Your task to perform on an android device: Go to CNN.com Image 0: 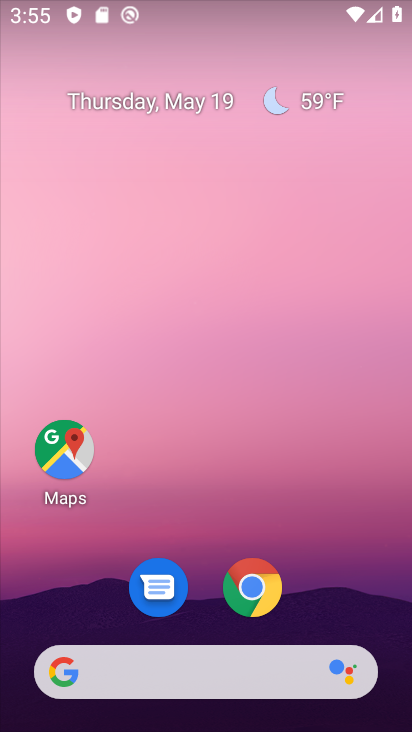
Step 0: click (134, 648)
Your task to perform on an android device: Go to CNN.com Image 1: 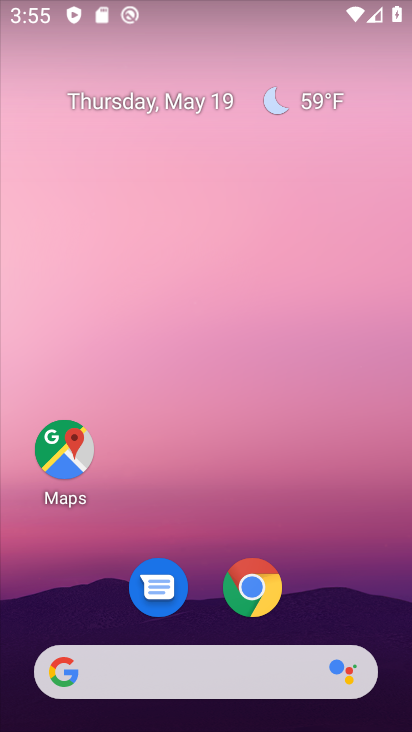
Step 1: drag from (169, 638) to (186, 243)
Your task to perform on an android device: Go to CNN.com Image 2: 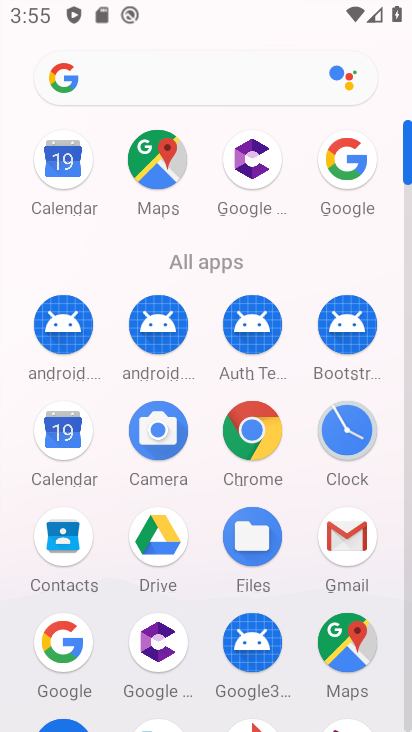
Step 2: click (67, 641)
Your task to perform on an android device: Go to CNN.com Image 3: 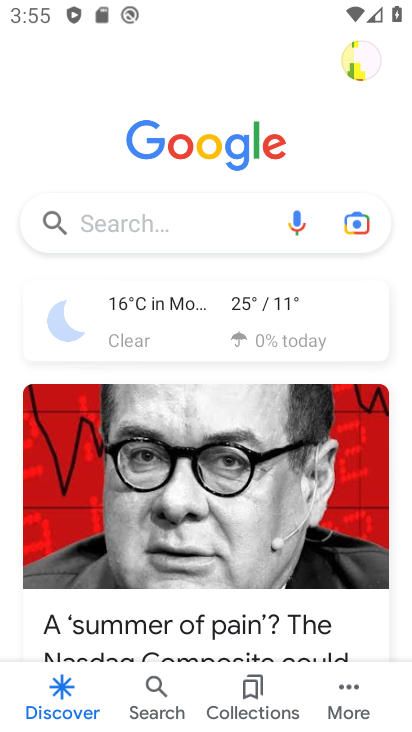
Step 3: click (168, 213)
Your task to perform on an android device: Go to CNN.com Image 4: 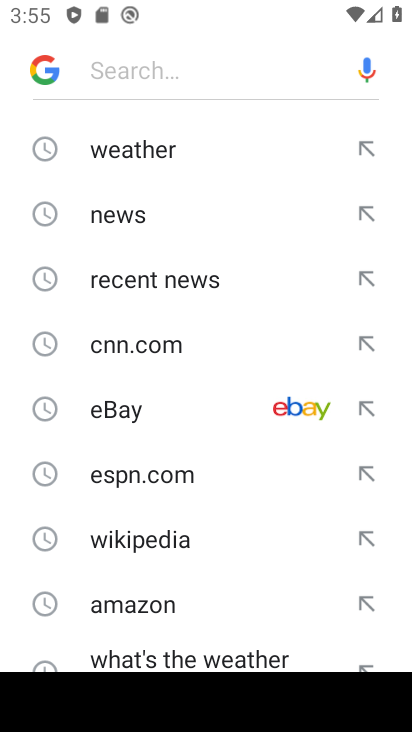
Step 4: click (161, 342)
Your task to perform on an android device: Go to CNN.com Image 5: 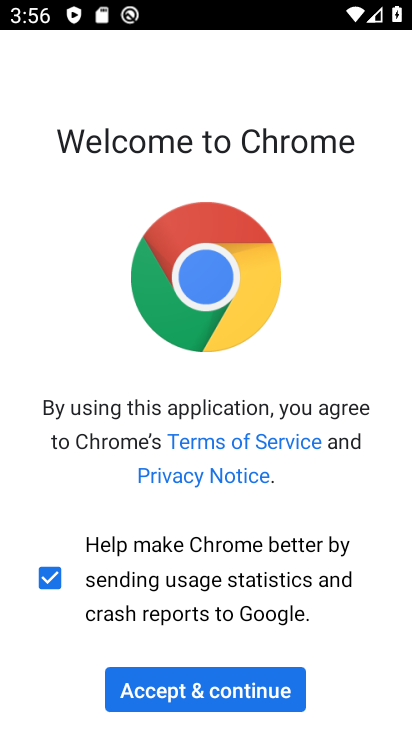
Step 5: drag from (240, 684) to (321, 684)
Your task to perform on an android device: Go to CNN.com Image 6: 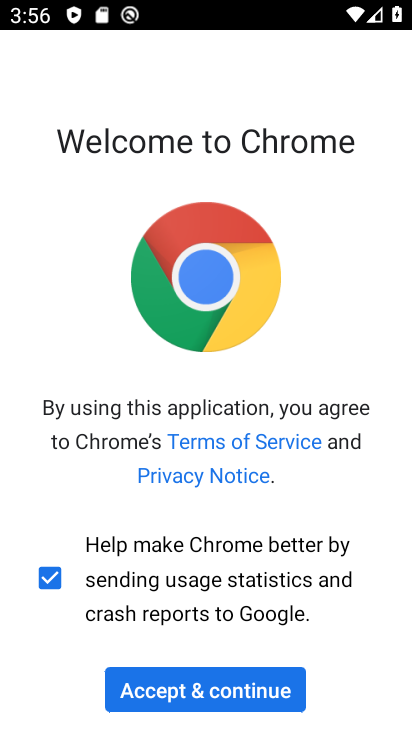
Step 6: click (173, 691)
Your task to perform on an android device: Go to CNN.com Image 7: 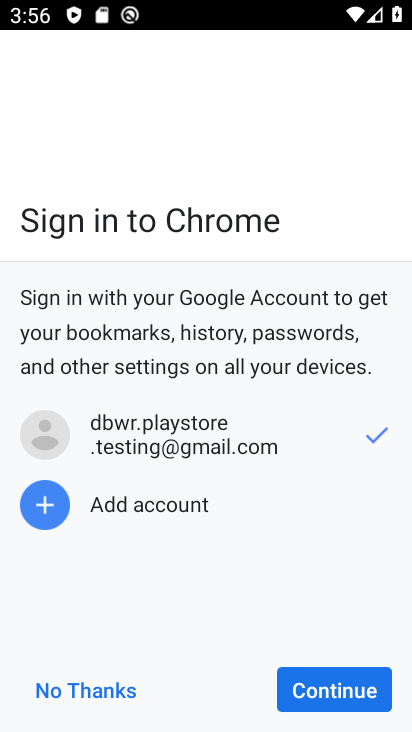
Step 7: click (330, 703)
Your task to perform on an android device: Go to CNN.com Image 8: 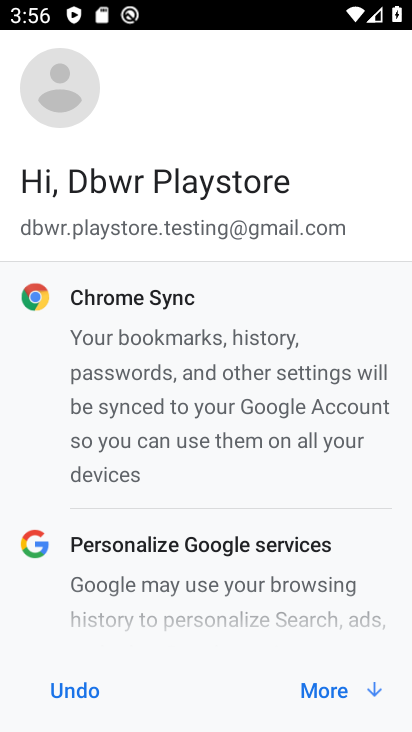
Step 8: click (322, 692)
Your task to perform on an android device: Go to CNN.com Image 9: 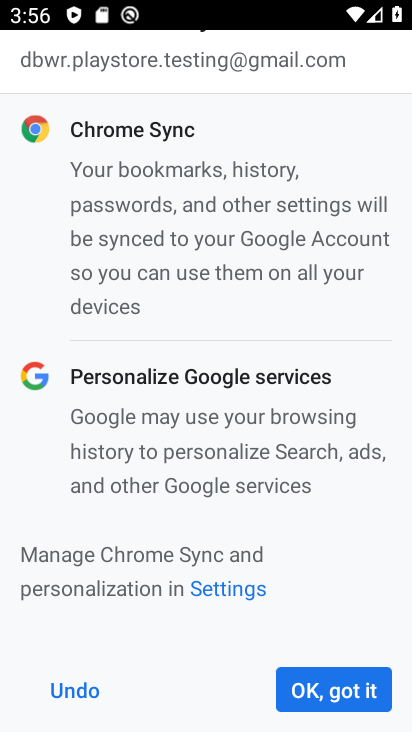
Step 9: click (320, 690)
Your task to perform on an android device: Go to CNN.com Image 10: 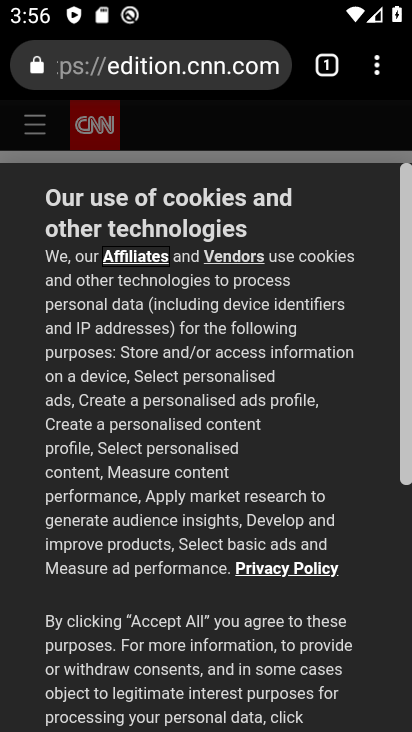
Step 10: task complete